Your task to perform on an android device: Go to location settings Image 0: 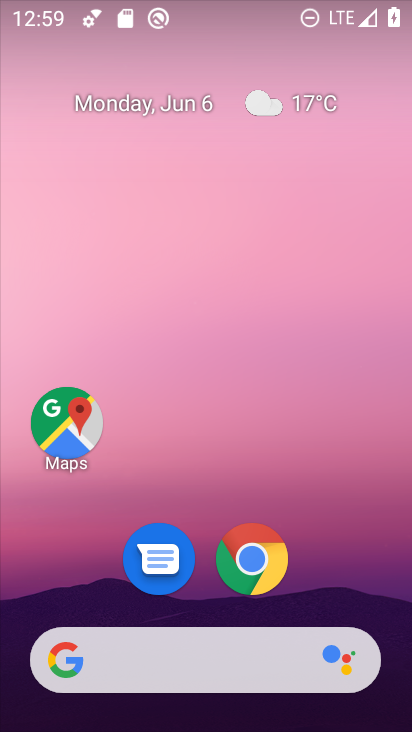
Step 0: drag from (207, 645) to (262, 75)
Your task to perform on an android device: Go to location settings Image 1: 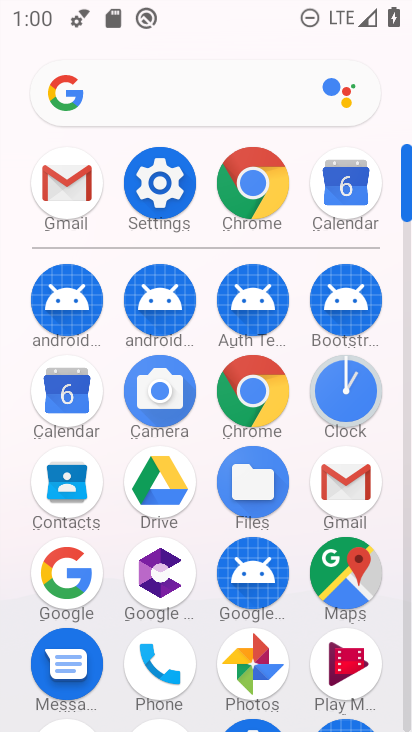
Step 1: click (160, 204)
Your task to perform on an android device: Go to location settings Image 2: 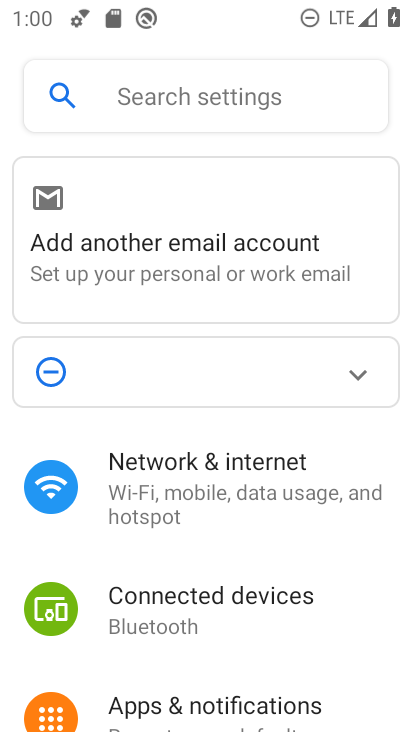
Step 2: drag from (200, 563) to (259, 180)
Your task to perform on an android device: Go to location settings Image 3: 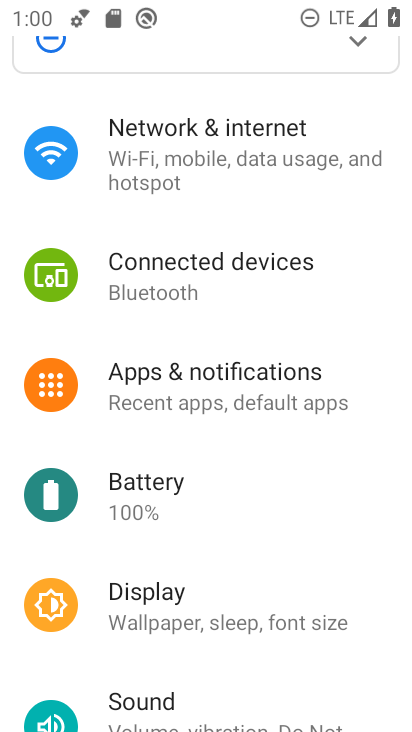
Step 3: drag from (230, 530) to (239, 296)
Your task to perform on an android device: Go to location settings Image 4: 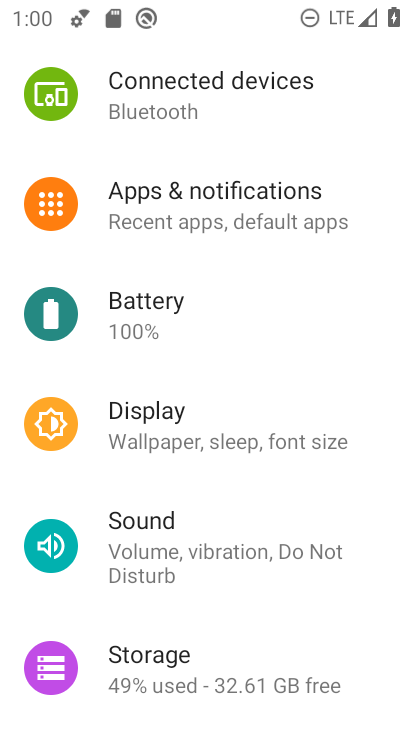
Step 4: drag from (194, 613) to (253, 284)
Your task to perform on an android device: Go to location settings Image 5: 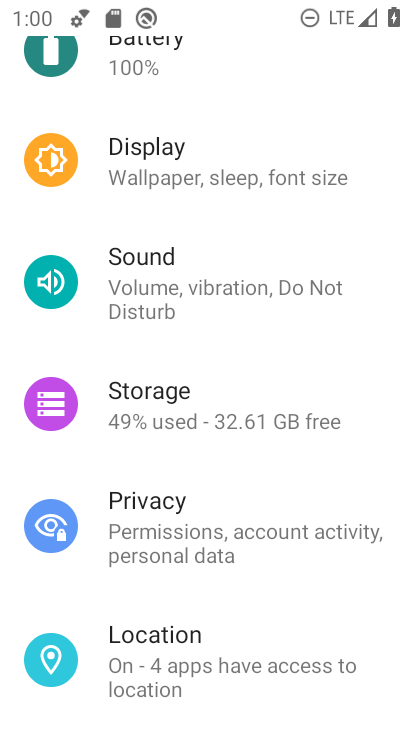
Step 5: click (236, 633)
Your task to perform on an android device: Go to location settings Image 6: 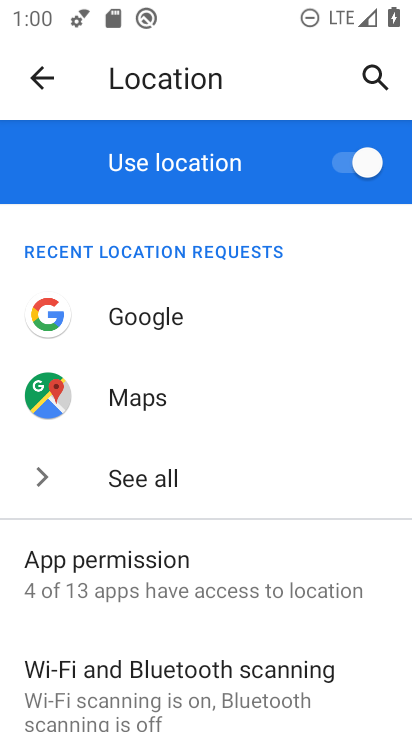
Step 6: drag from (236, 630) to (251, 314)
Your task to perform on an android device: Go to location settings Image 7: 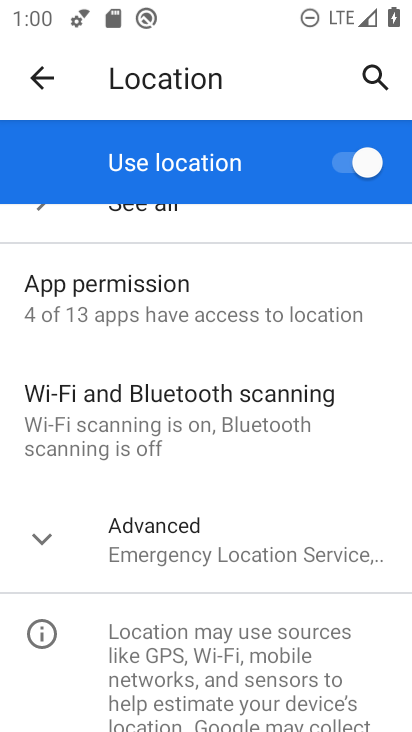
Step 7: click (229, 538)
Your task to perform on an android device: Go to location settings Image 8: 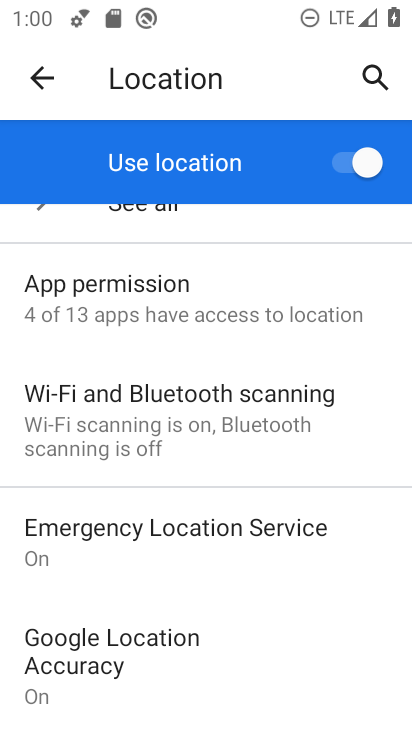
Step 8: task complete